Your task to perform on an android device: find photos in the google photos app Image 0: 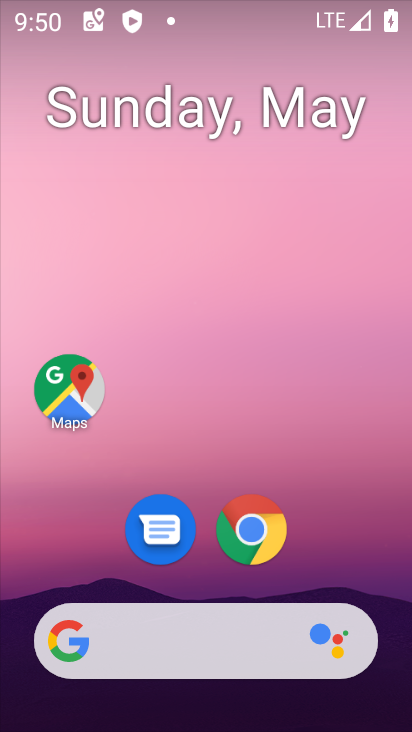
Step 0: drag from (356, 549) to (294, 170)
Your task to perform on an android device: find photos in the google photos app Image 1: 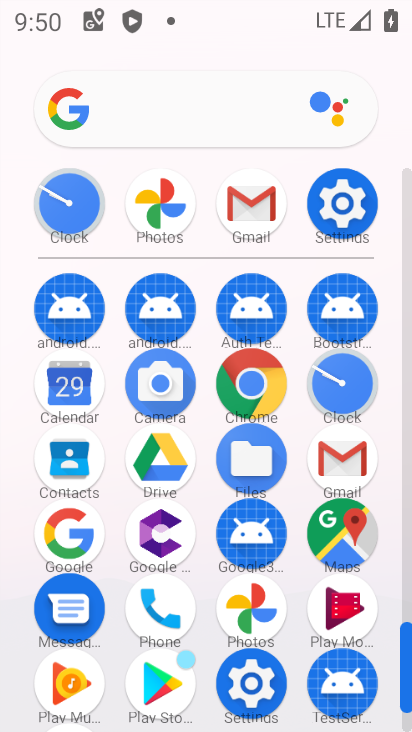
Step 1: click (257, 604)
Your task to perform on an android device: find photos in the google photos app Image 2: 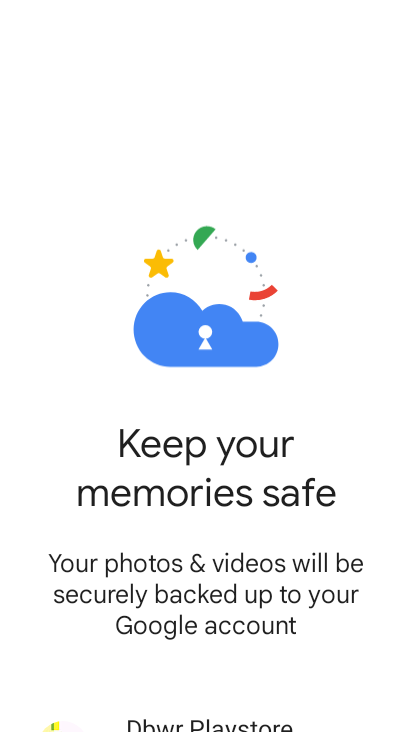
Step 2: task complete